Your task to perform on an android device: Open the map Image 0: 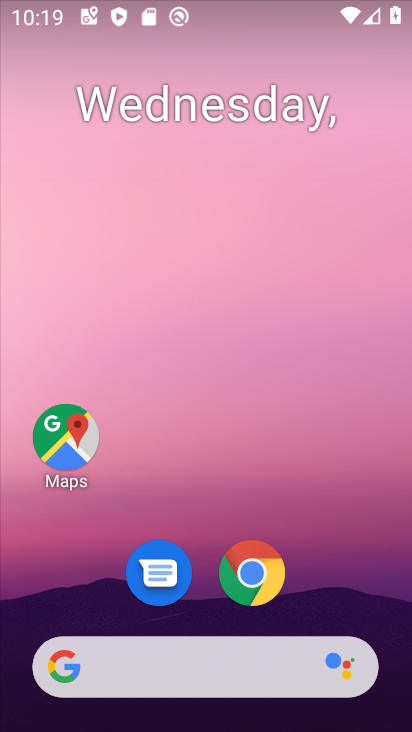
Step 0: click (57, 424)
Your task to perform on an android device: Open the map Image 1: 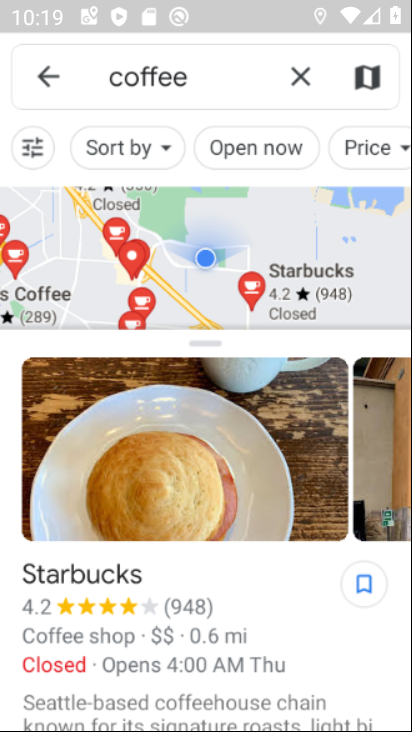
Step 1: click (298, 82)
Your task to perform on an android device: Open the map Image 2: 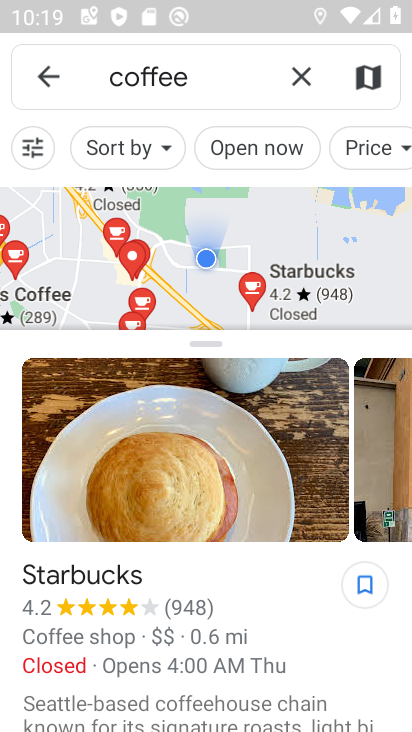
Step 2: click (301, 75)
Your task to perform on an android device: Open the map Image 3: 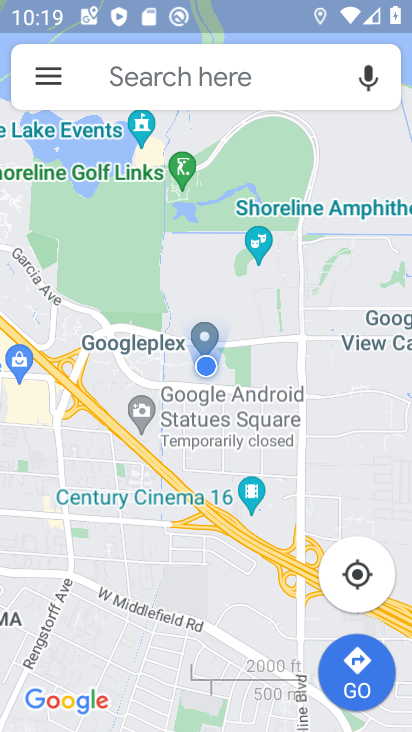
Step 3: click (168, 79)
Your task to perform on an android device: Open the map Image 4: 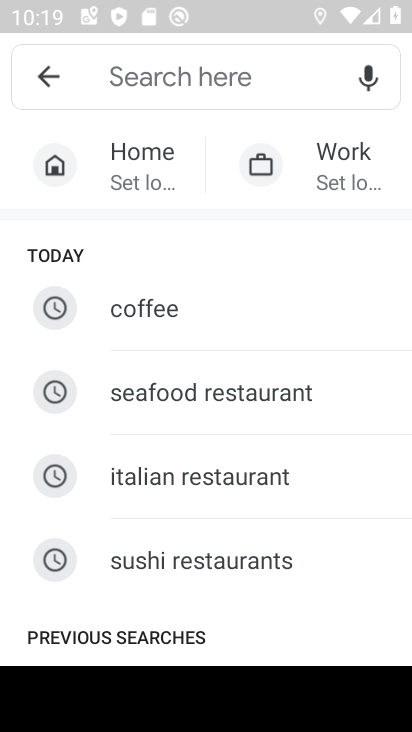
Step 4: click (175, 68)
Your task to perform on an android device: Open the map Image 5: 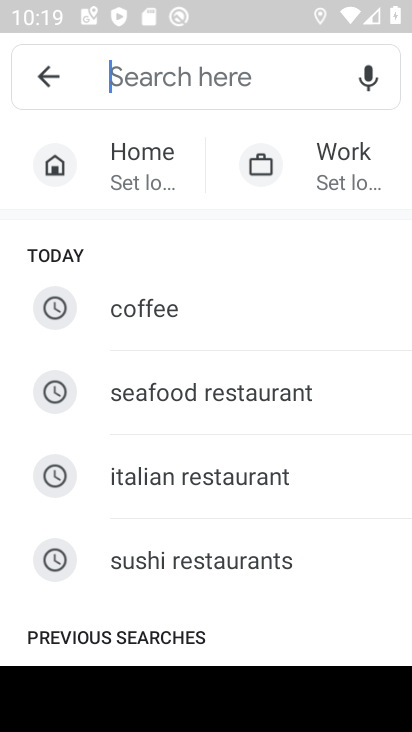
Step 5: click (44, 79)
Your task to perform on an android device: Open the map Image 6: 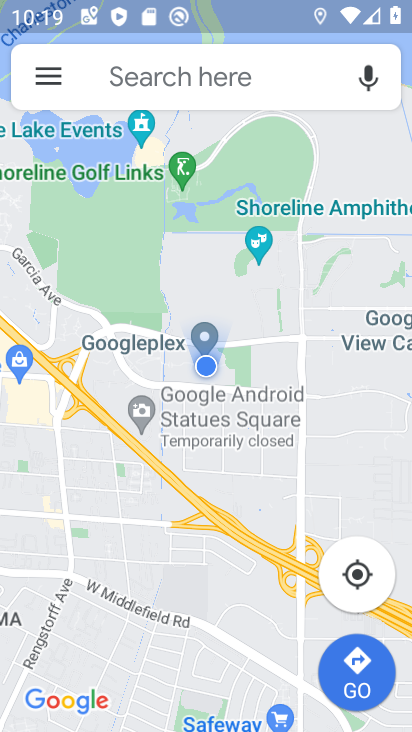
Step 6: task complete